Your task to perform on an android device: Toggle the flashlight Image 0: 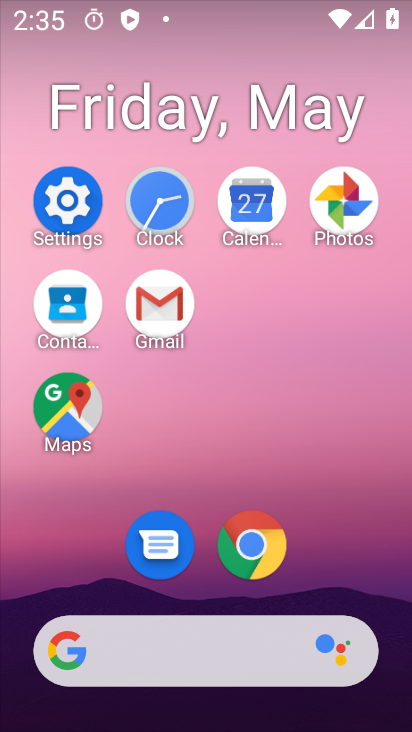
Step 0: drag from (233, 1) to (231, 689)
Your task to perform on an android device: Toggle the flashlight Image 1: 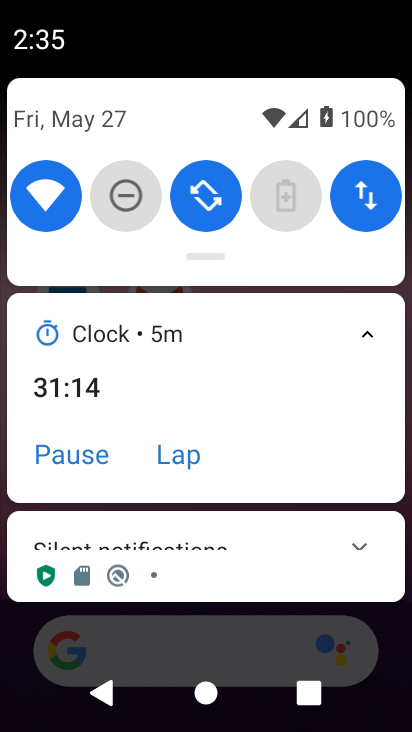
Step 1: task complete